Your task to perform on an android device: Go to settings Image 0: 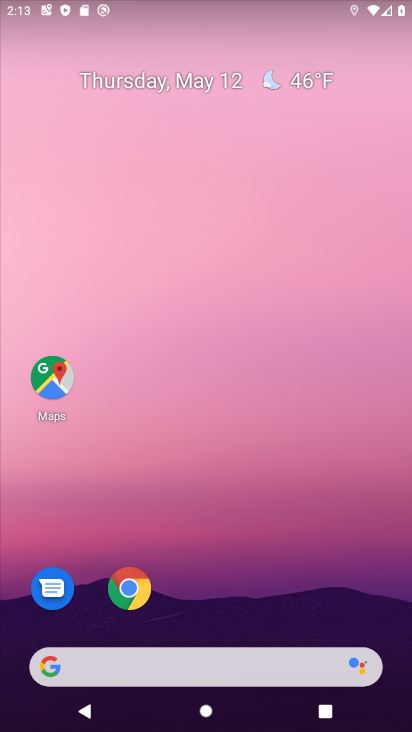
Step 0: drag from (389, 620) to (304, 62)
Your task to perform on an android device: Go to settings Image 1: 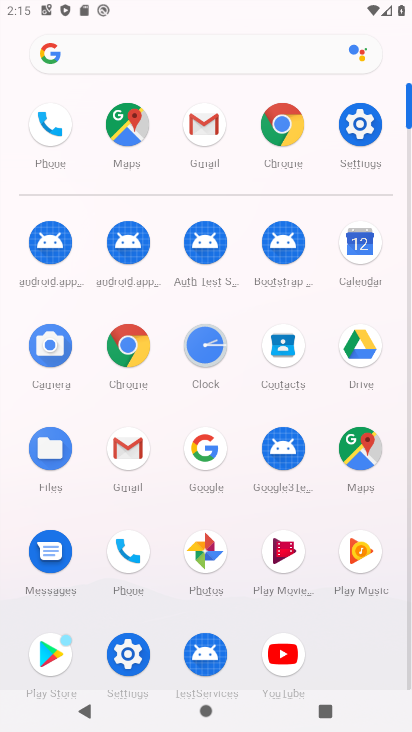
Step 1: click (131, 655)
Your task to perform on an android device: Go to settings Image 2: 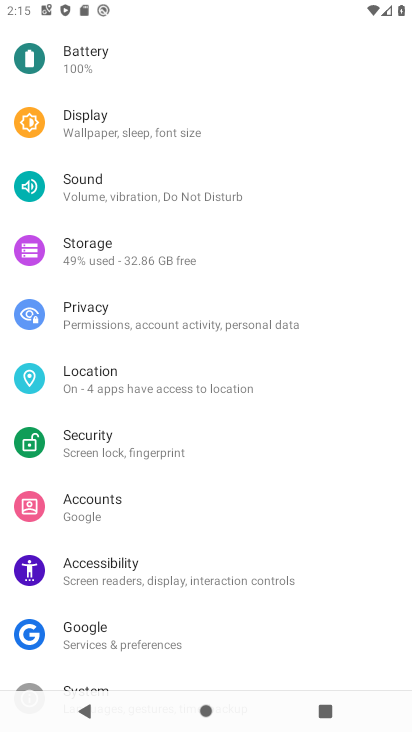
Step 2: task complete